Your task to perform on an android device: change the clock style Image 0: 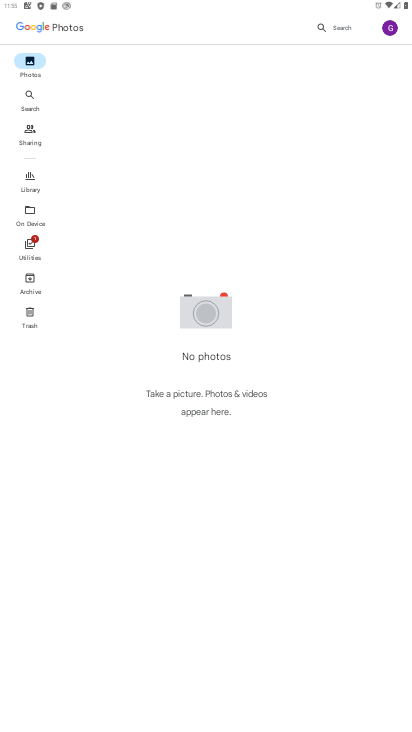
Step 0: press home button
Your task to perform on an android device: change the clock style Image 1: 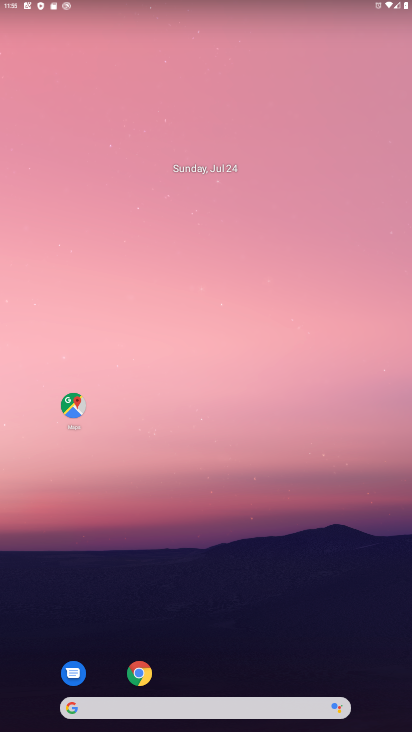
Step 1: drag from (330, 574) to (259, 59)
Your task to perform on an android device: change the clock style Image 2: 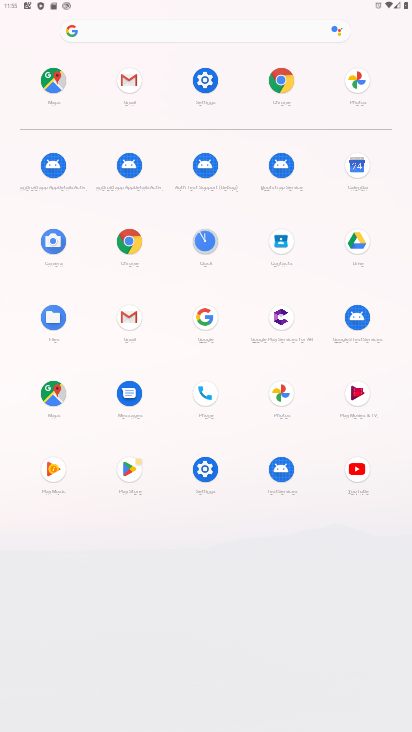
Step 2: click (212, 237)
Your task to perform on an android device: change the clock style Image 3: 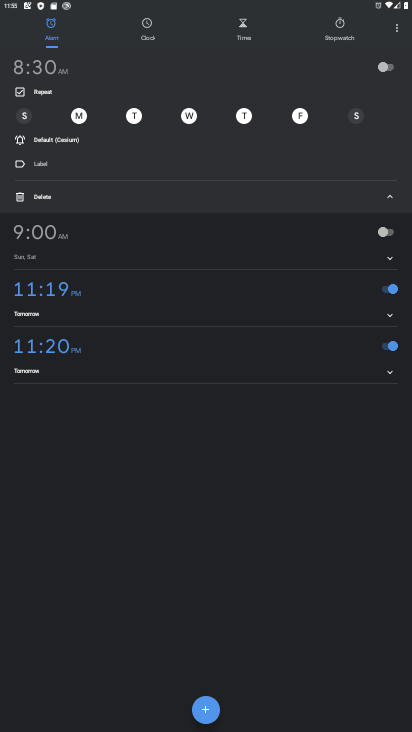
Step 3: click (396, 31)
Your task to perform on an android device: change the clock style Image 4: 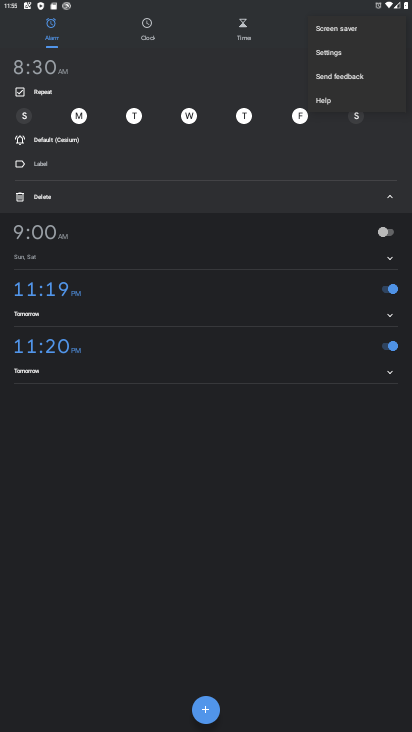
Step 4: click (328, 53)
Your task to perform on an android device: change the clock style Image 5: 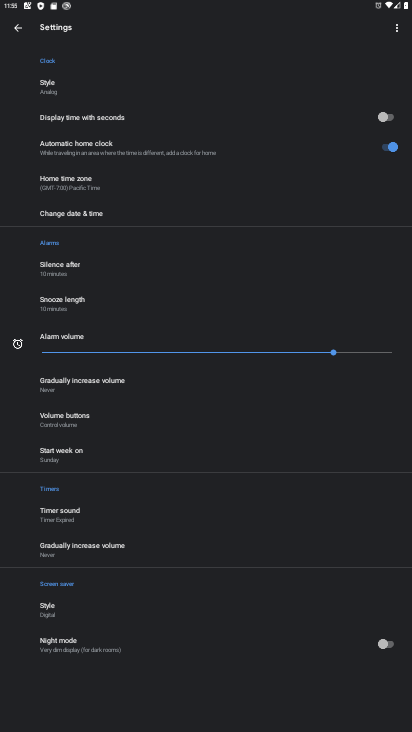
Step 5: click (53, 92)
Your task to perform on an android device: change the clock style Image 6: 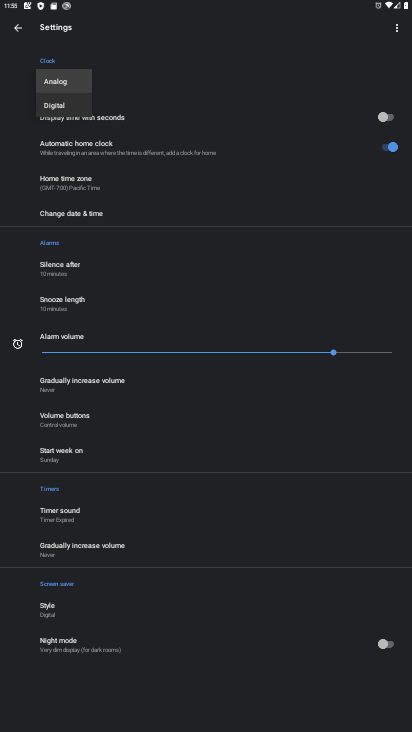
Step 6: click (73, 109)
Your task to perform on an android device: change the clock style Image 7: 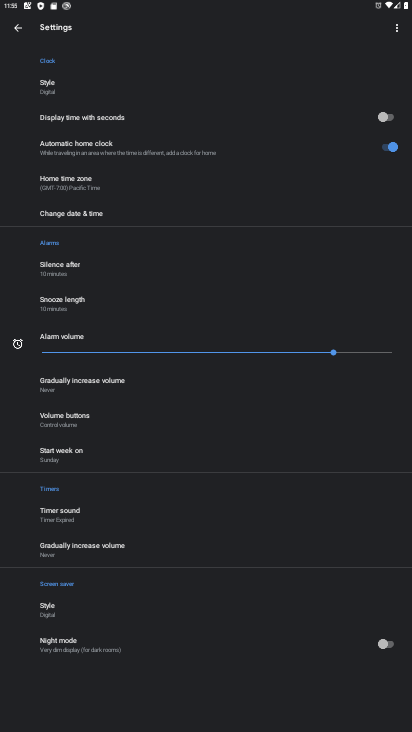
Step 7: task complete